Your task to perform on an android device: snooze an email in the gmail app Image 0: 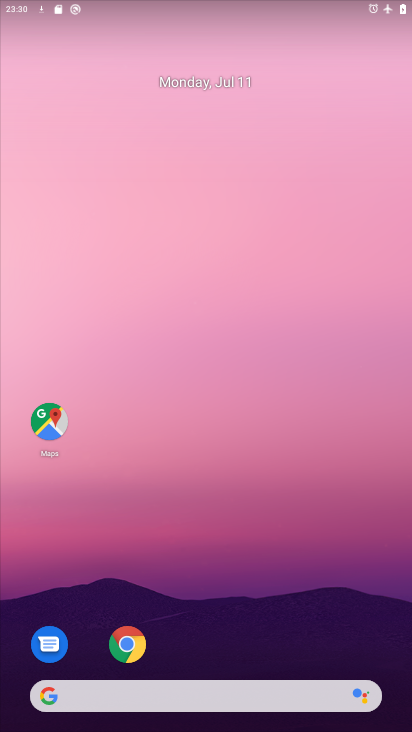
Step 0: drag from (264, 614) to (259, 107)
Your task to perform on an android device: snooze an email in the gmail app Image 1: 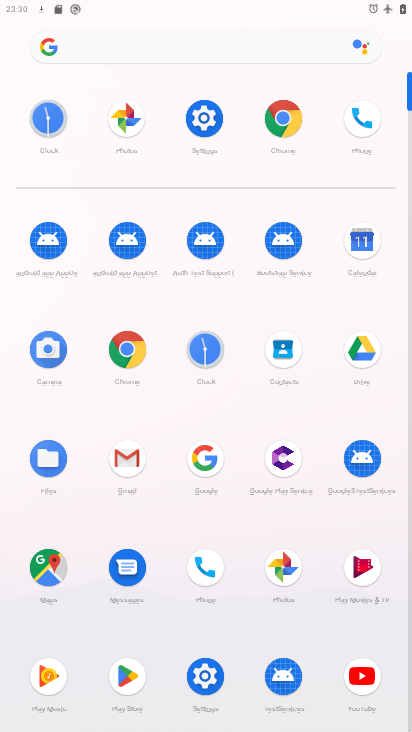
Step 1: drag from (160, 530) to (172, 423)
Your task to perform on an android device: snooze an email in the gmail app Image 2: 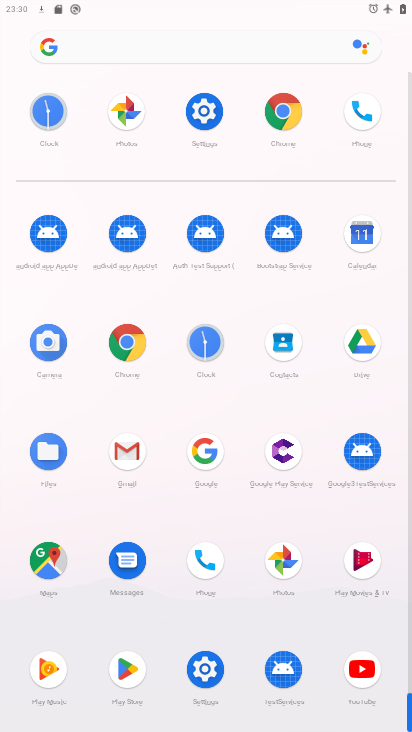
Step 2: click (115, 448)
Your task to perform on an android device: snooze an email in the gmail app Image 3: 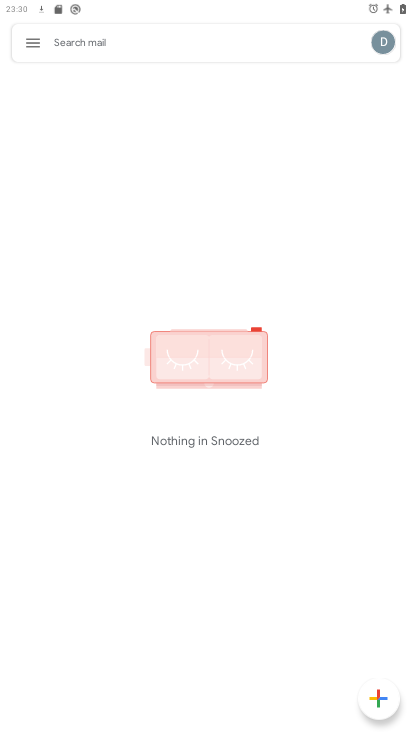
Step 3: click (36, 47)
Your task to perform on an android device: snooze an email in the gmail app Image 4: 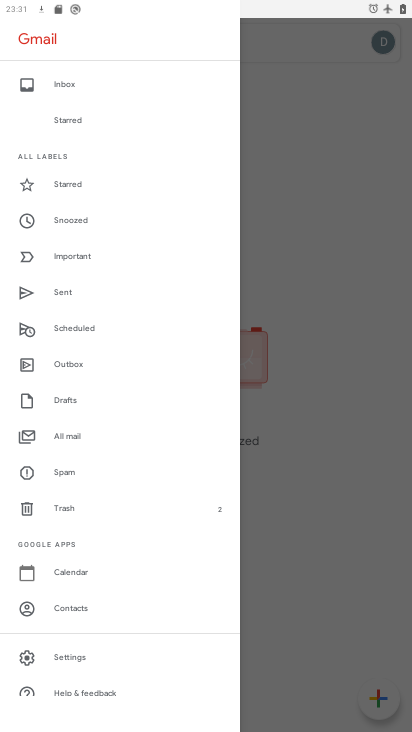
Step 4: click (97, 220)
Your task to perform on an android device: snooze an email in the gmail app Image 5: 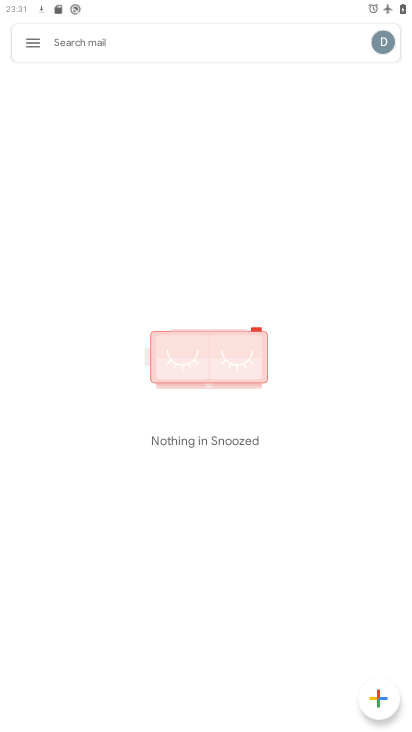
Step 5: task complete